Your task to perform on an android device: Is it going to rain tomorrow? Image 0: 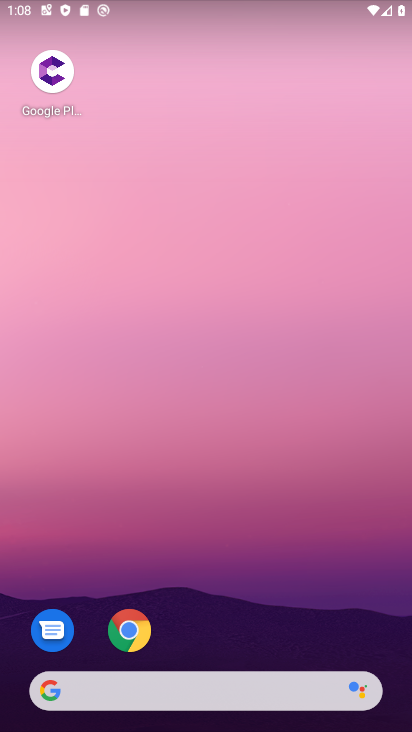
Step 0: drag from (210, 627) to (216, 48)
Your task to perform on an android device: Is it going to rain tomorrow? Image 1: 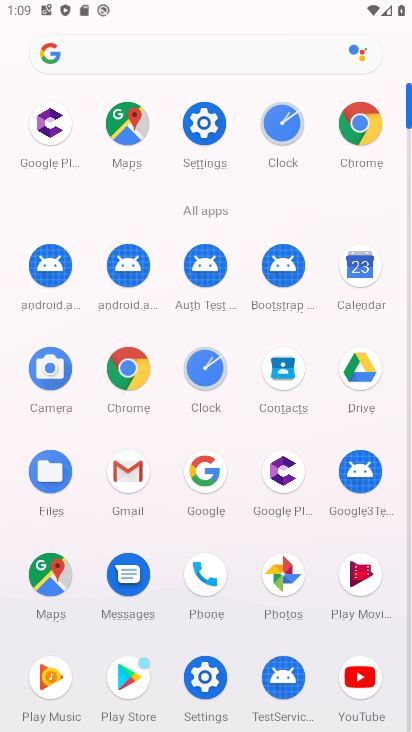
Step 1: click (207, 483)
Your task to perform on an android device: Is it going to rain tomorrow? Image 2: 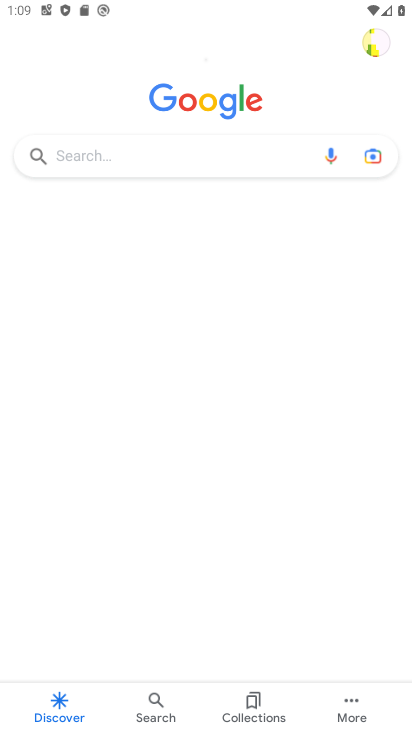
Step 2: click (123, 143)
Your task to perform on an android device: Is it going to rain tomorrow? Image 3: 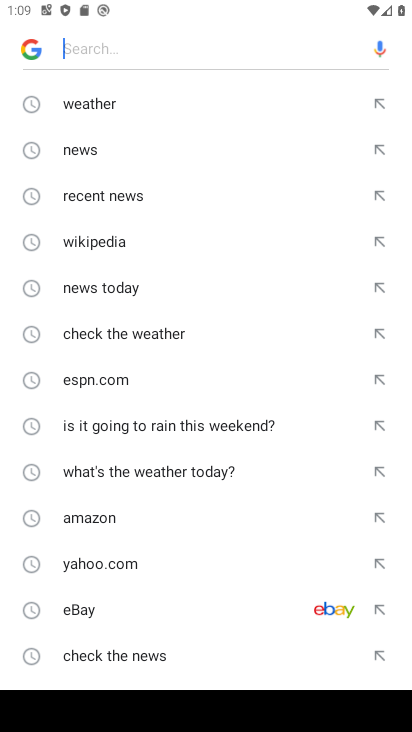
Step 3: type "is it going to rain tomorrow"
Your task to perform on an android device: Is it going to rain tomorrow? Image 4: 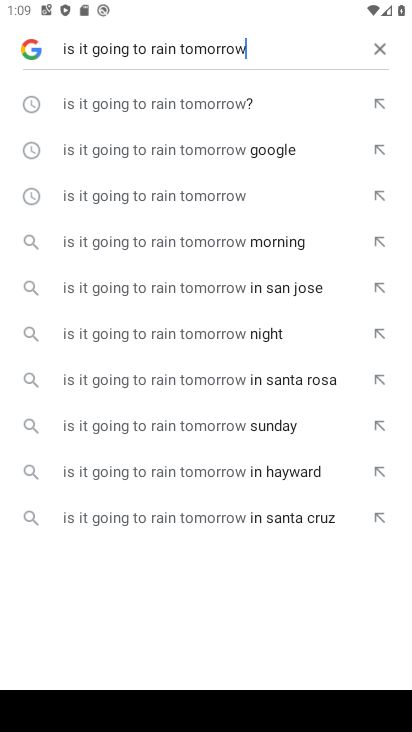
Step 4: click (187, 99)
Your task to perform on an android device: Is it going to rain tomorrow? Image 5: 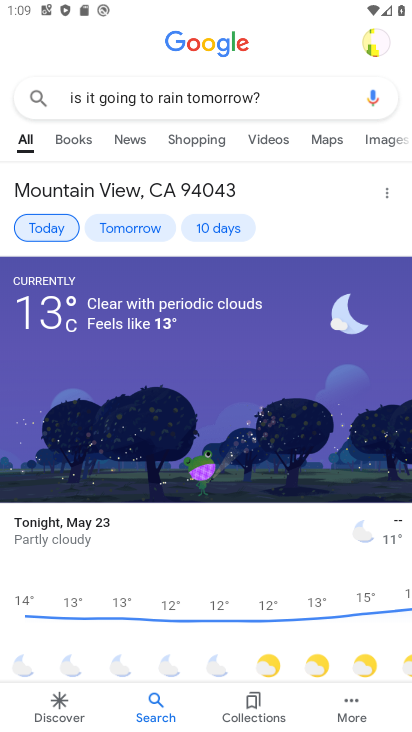
Step 5: task complete